Your task to perform on an android device: Open settings Image 0: 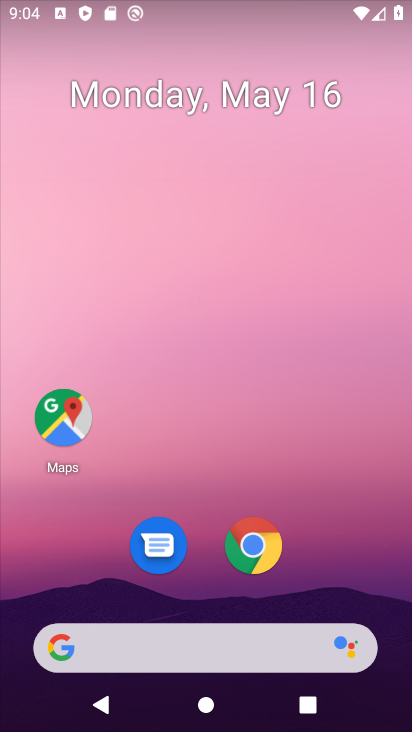
Step 0: drag from (199, 585) to (234, 292)
Your task to perform on an android device: Open settings Image 1: 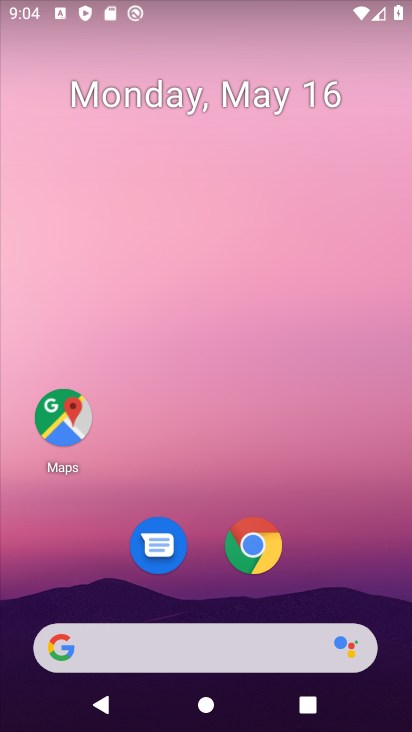
Step 1: drag from (204, 590) to (210, 221)
Your task to perform on an android device: Open settings Image 2: 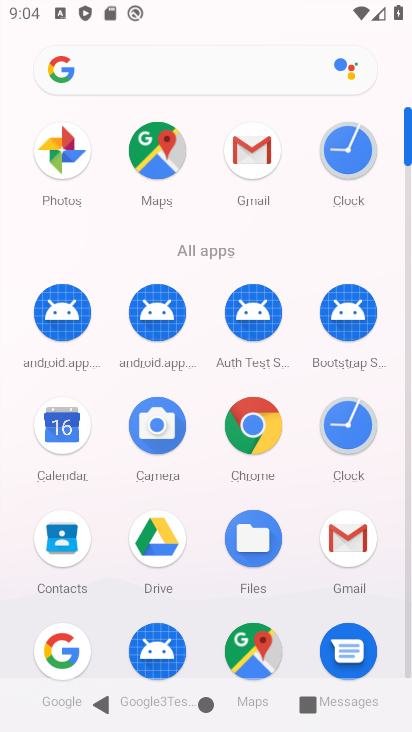
Step 2: drag from (206, 665) to (242, 352)
Your task to perform on an android device: Open settings Image 3: 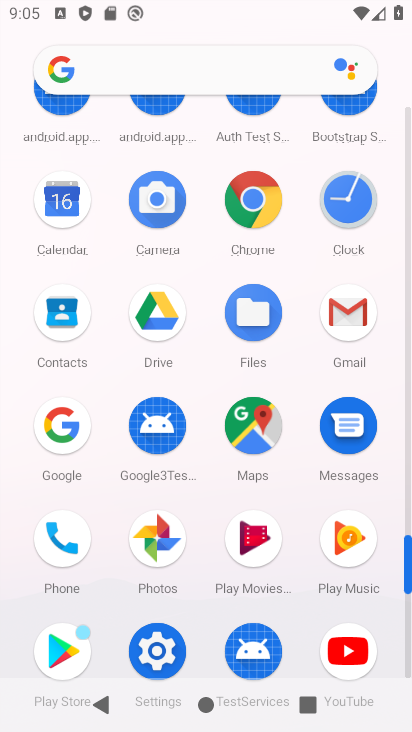
Step 3: click (147, 644)
Your task to perform on an android device: Open settings Image 4: 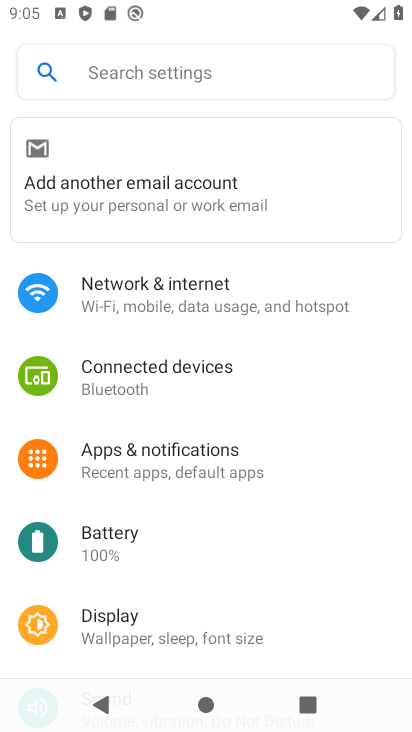
Step 4: task complete